Your task to perform on an android device: What's the weather going to be tomorrow? Image 0: 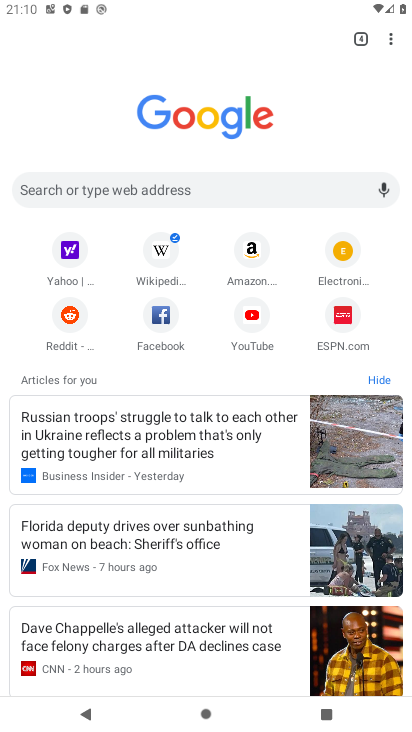
Step 0: click (286, 192)
Your task to perform on an android device: What's the weather going to be tomorrow? Image 1: 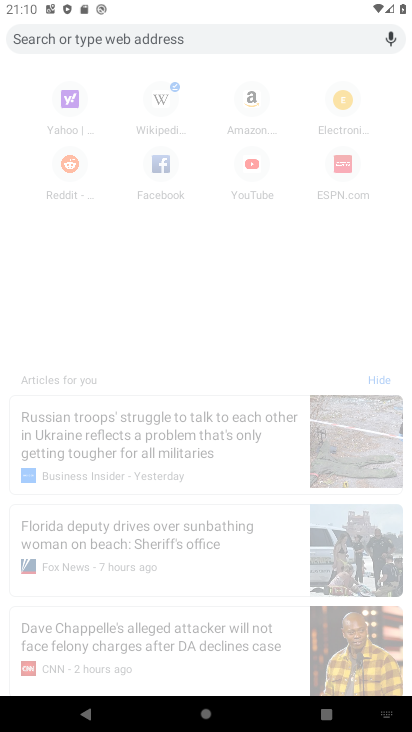
Step 1: type "weather going to be tomorrow"
Your task to perform on an android device: What's the weather going to be tomorrow? Image 2: 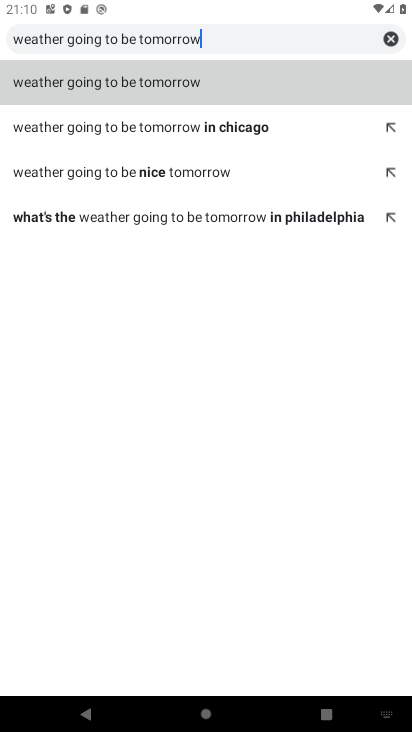
Step 2: click (106, 83)
Your task to perform on an android device: What's the weather going to be tomorrow? Image 3: 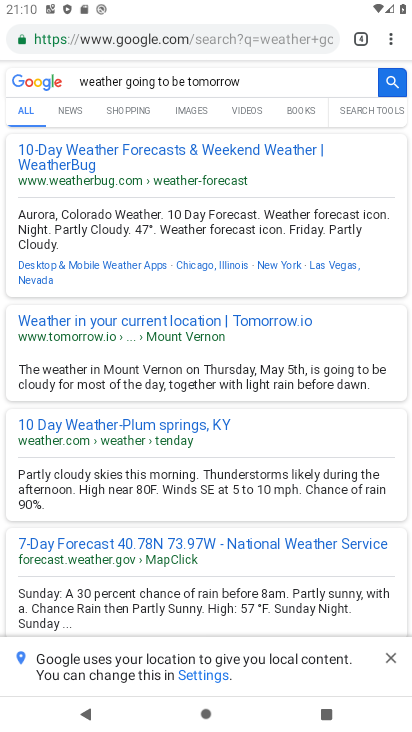
Step 3: task complete